Your task to perform on an android device: Add acer predator to the cart on costco.com Image 0: 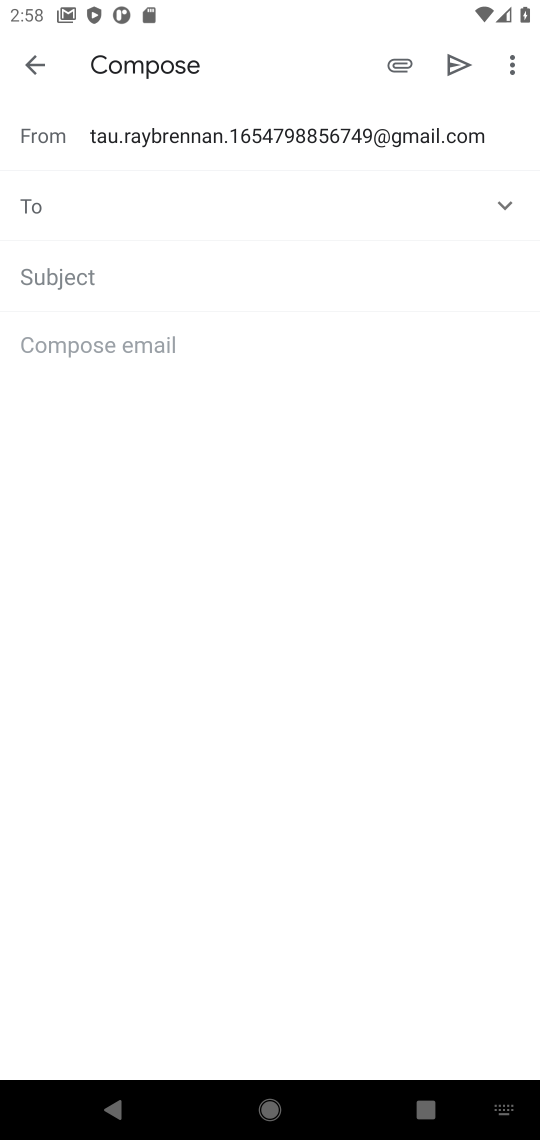
Step 0: press home button
Your task to perform on an android device: Add acer predator to the cart on costco.com Image 1: 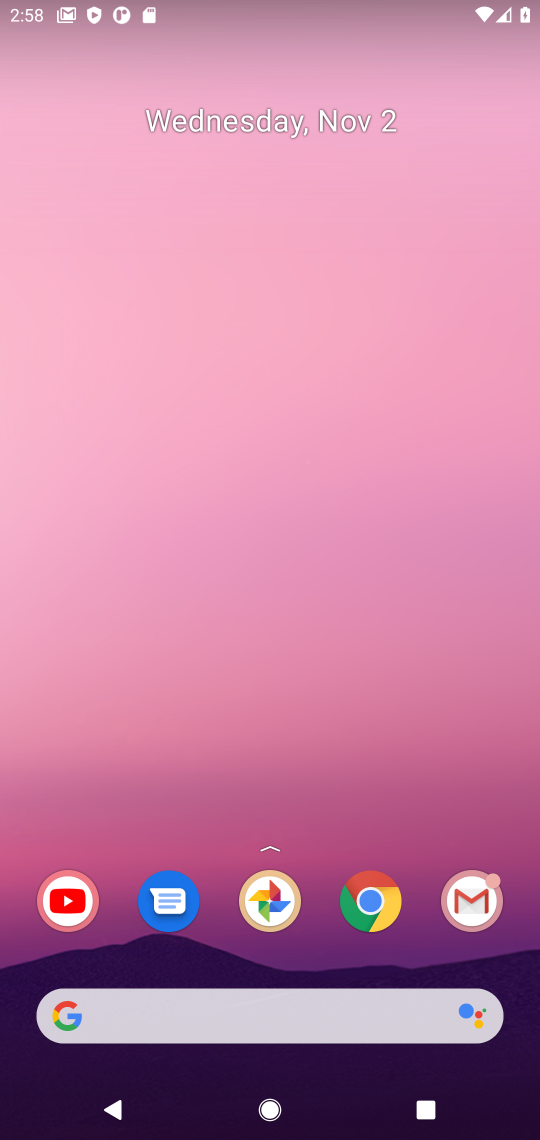
Step 1: drag from (337, 1065) to (317, 40)
Your task to perform on an android device: Add acer predator to the cart on costco.com Image 2: 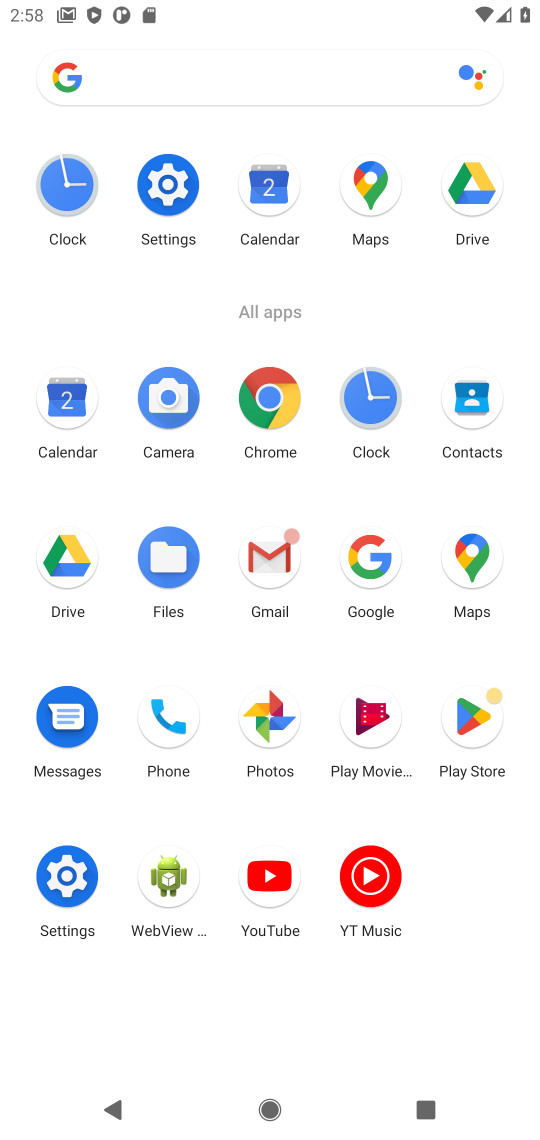
Step 2: click (267, 412)
Your task to perform on an android device: Add acer predator to the cart on costco.com Image 3: 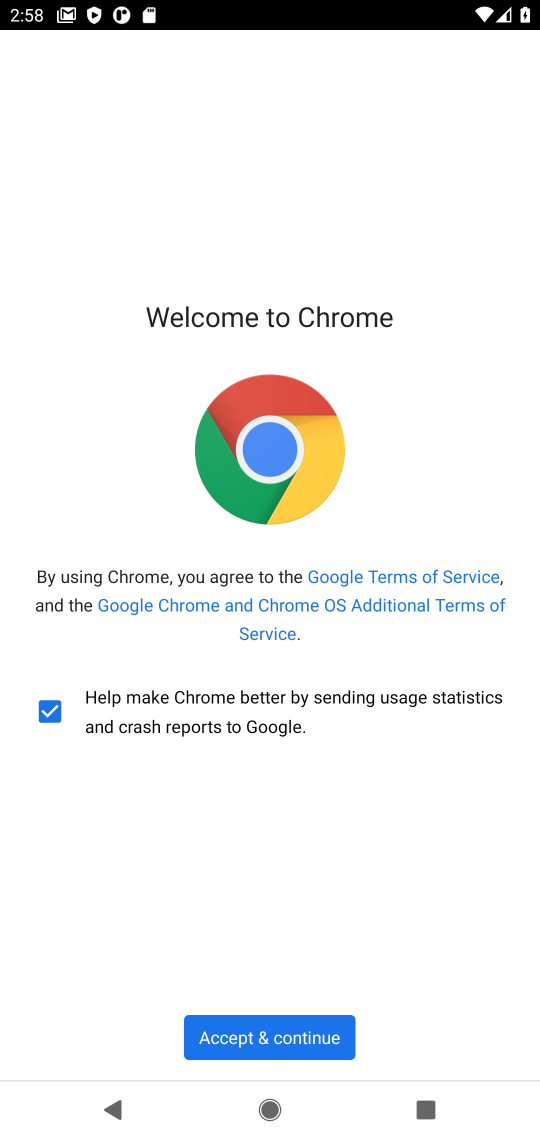
Step 3: click (298, 1032)
Your task to perform on an android device: Add acer predator to the cart on costco.com Image 4: 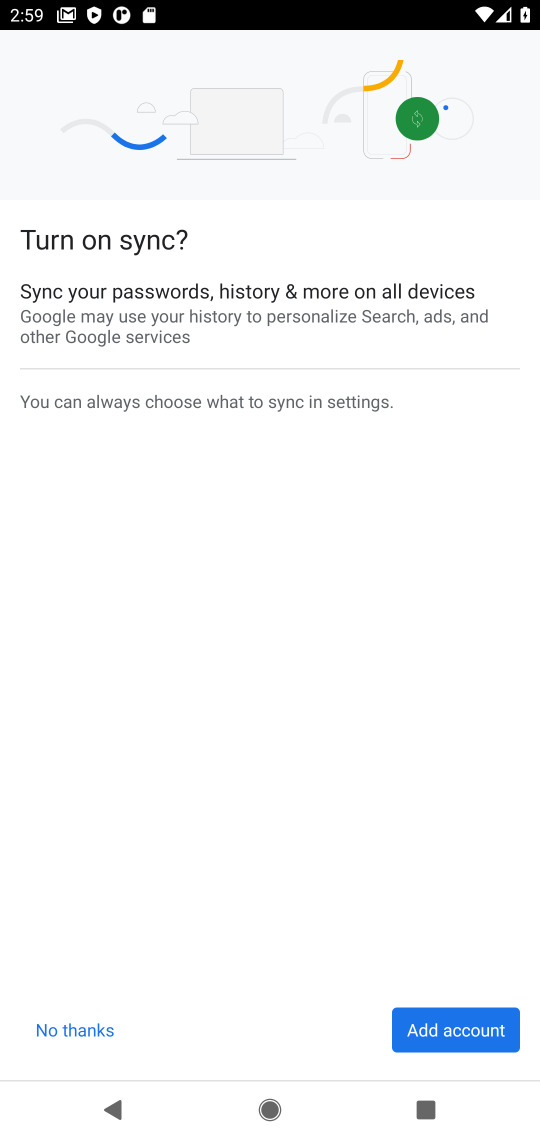
Step 4: click (464, 1029)
Your task to perform on an android device: Add acer predator to the cart on costco.com Image 5: 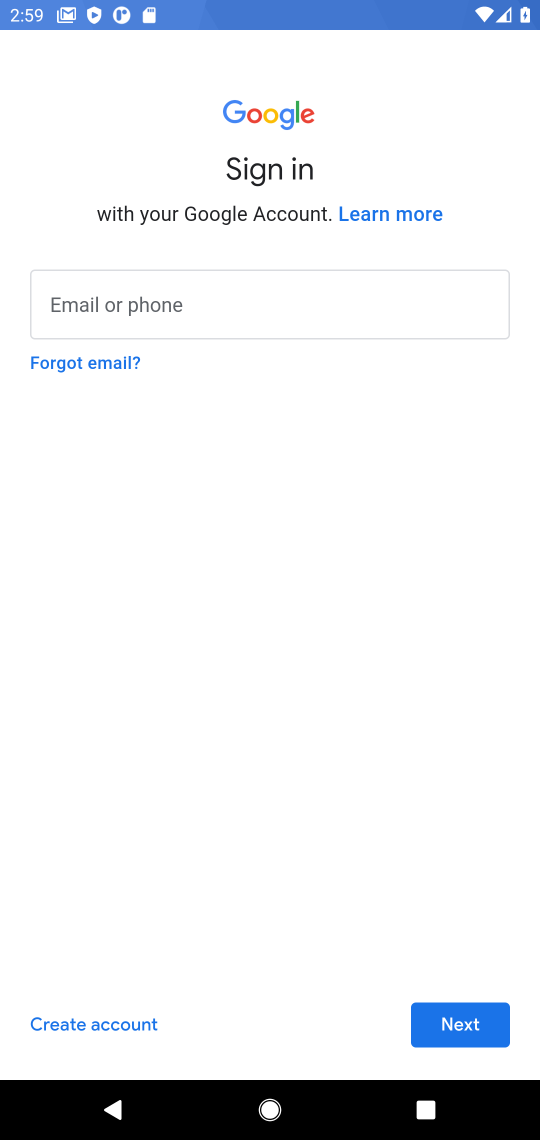
Step 5: task complete